Your task to perform on an android device: Open Amazon Image 0: 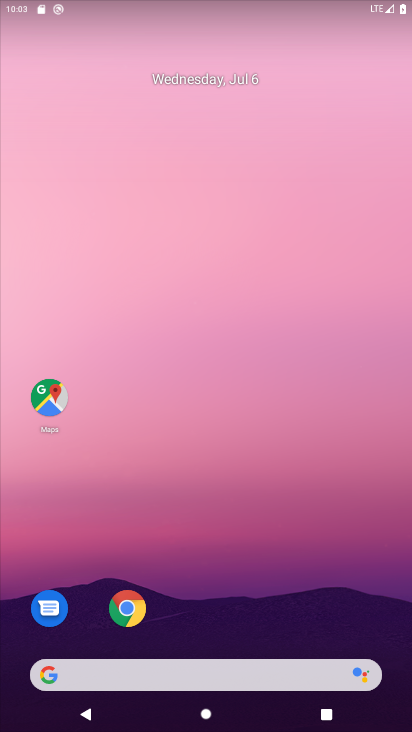
Step 0: drag from (215, 623) to (250, 43)
Your task to perform on an android device: Open Amazon Image 1: 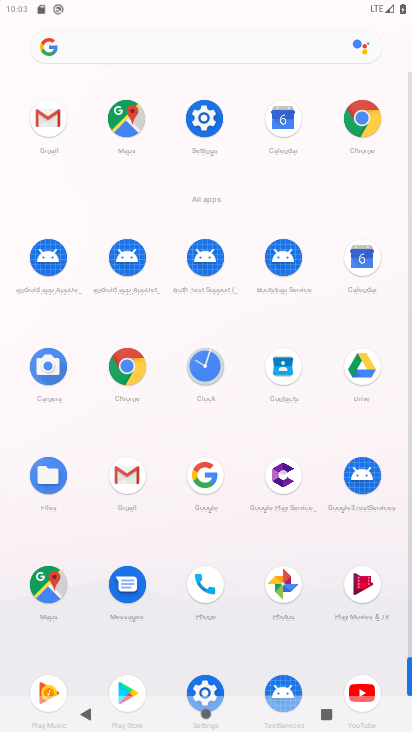
Step 1: click (133, 377)
Your task to perform on an android device: Open Amazon Image 2: 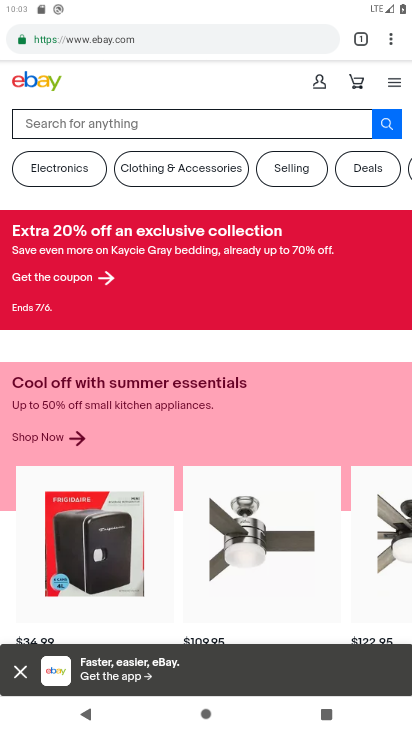
Step 2: click (288, 36)
Your task to perform on an android device: Open Amazon Image 3: 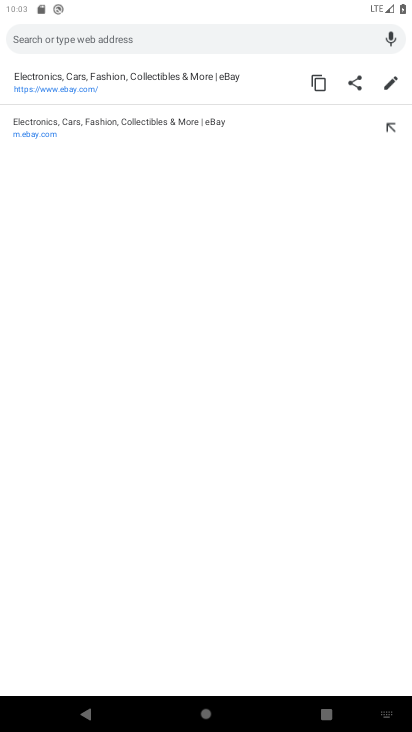
Step 3: type "Amazon"
Your task to perform on an android device: Open Amazon Image 4: 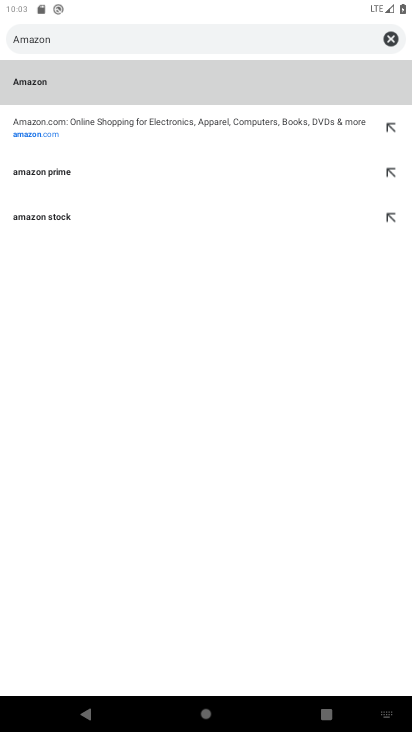
Step 4: click (87, 118)
Your task to perform on an android device: Open Amazon Image 5: 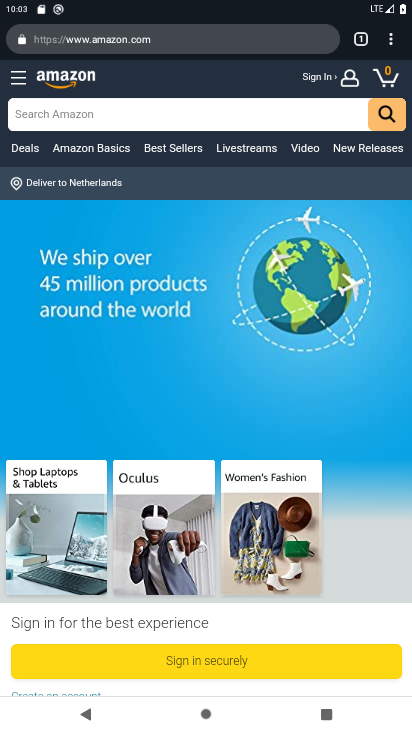
Step 5: task complete